Your task to perform on an android device: install app "Etsy: Buy & Sell Unique Items" Image 0: 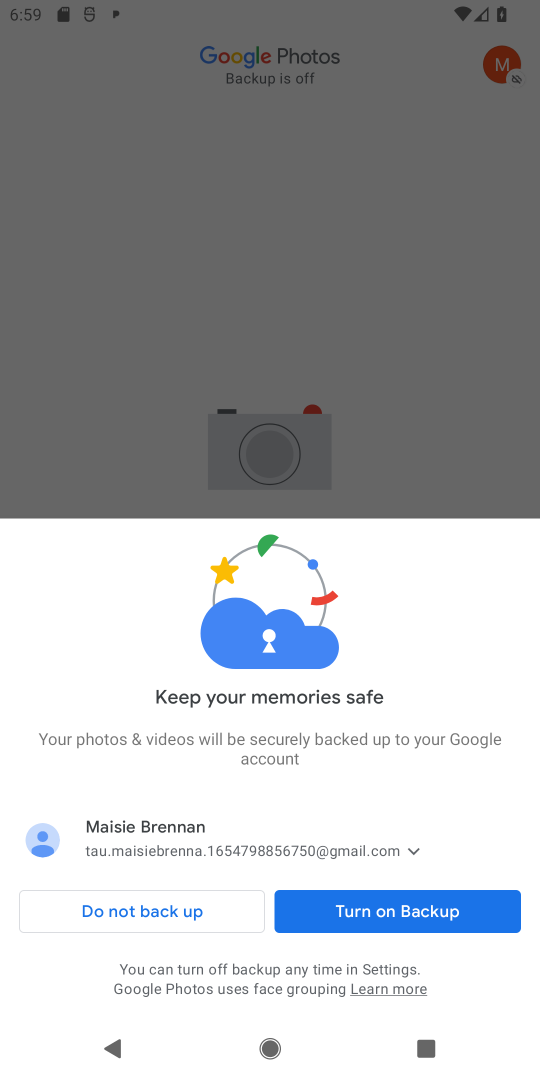
Step 0: press home button
Your task to perform on an android device: install app "Etsy: Buy & Sell Unique Items" Image 1: 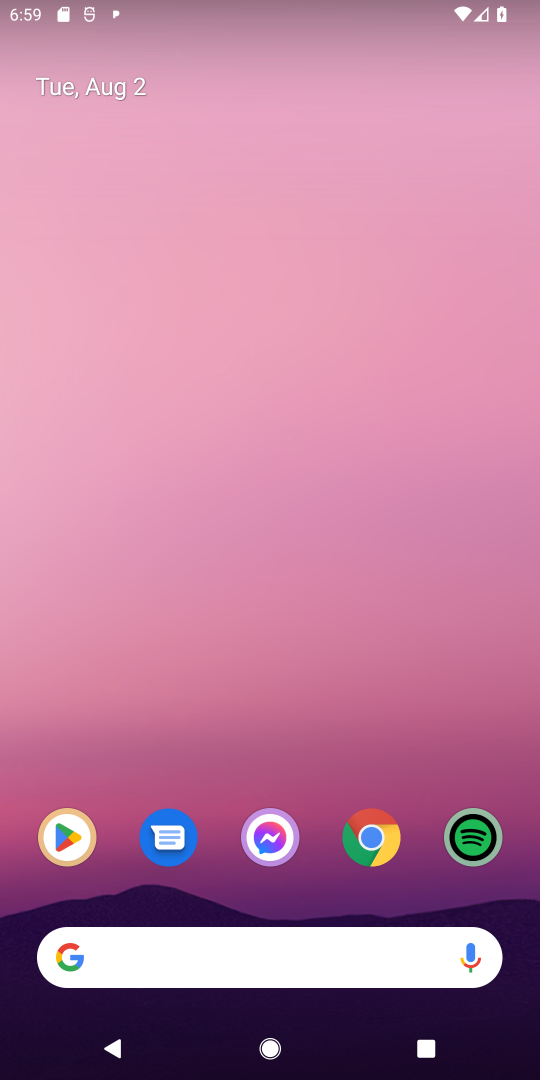
Step 1: click (62, 832)
Your task to perform on an android device: install app "Etsy: Buy & Sell Unique Items" Image 2: 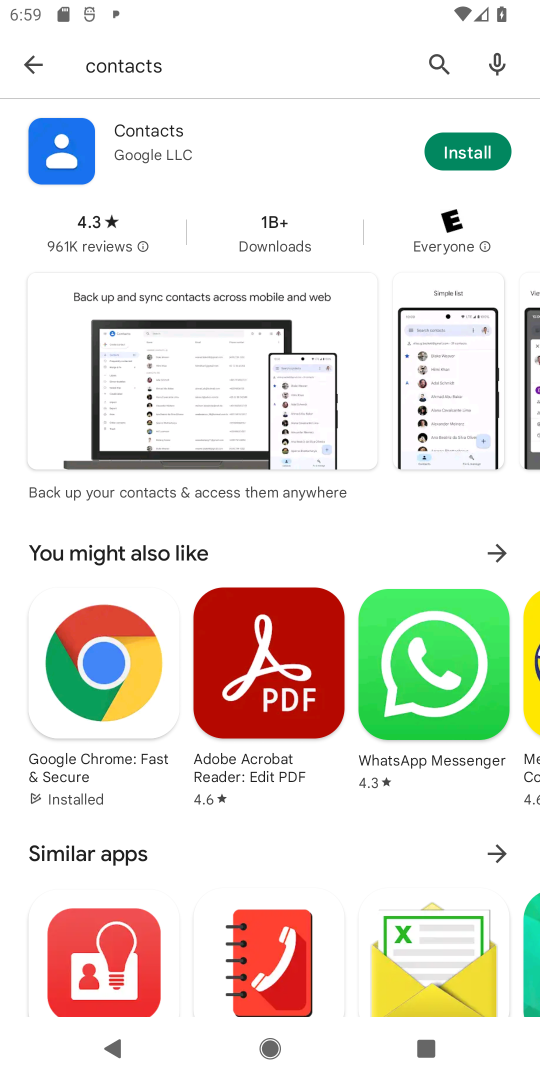
Step 2: click (442, 65)
Your task to perform on an android device: install app "Etsy: Buy & Sell Unique Items" Image 3: 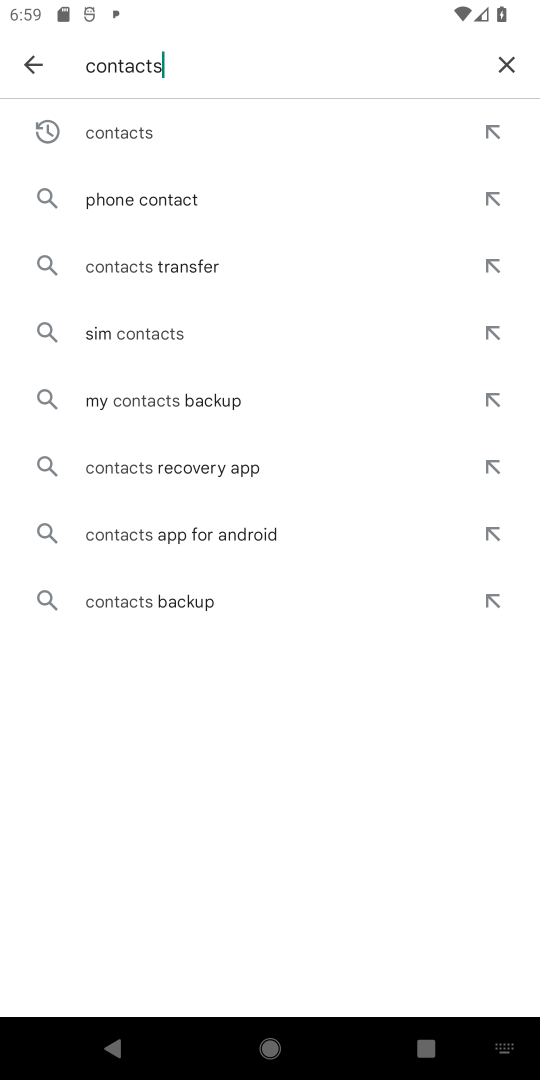
Step 3: click (511, 64)
Your task to perform on an android device: install app "Etsy: Buy & Sell Unique Items" Image 4: 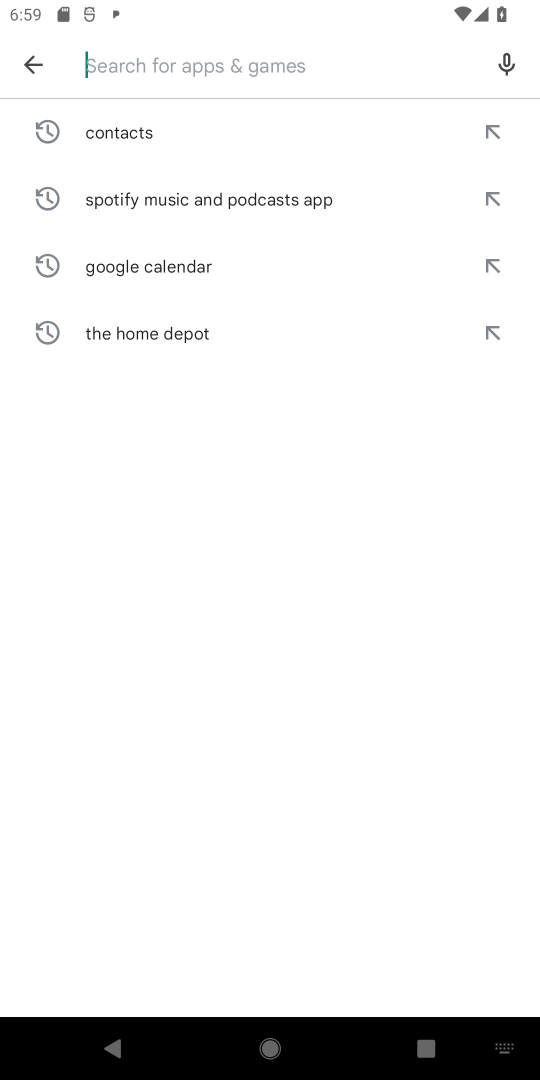
Step 4: type "Etsy: Buy & Sell Unique Items"
Your task to perform on an android device: install app "Etsy: Buy & Sell Unique Items" Image 5: 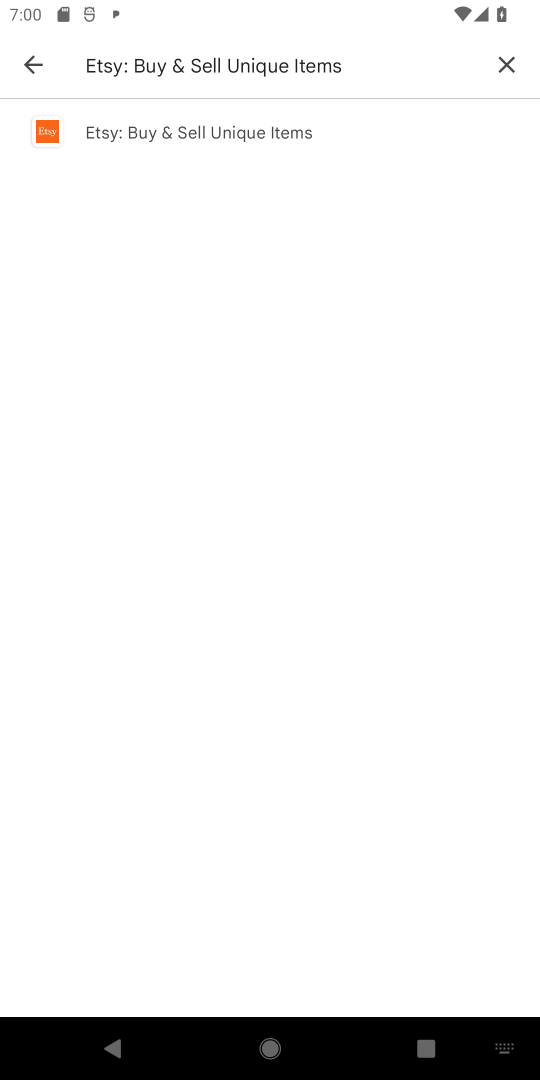
Step 5: click (150, 133)
Your task to perform on an android device: install app "Etsy: Buy & Sell Unique Items" Image 6: 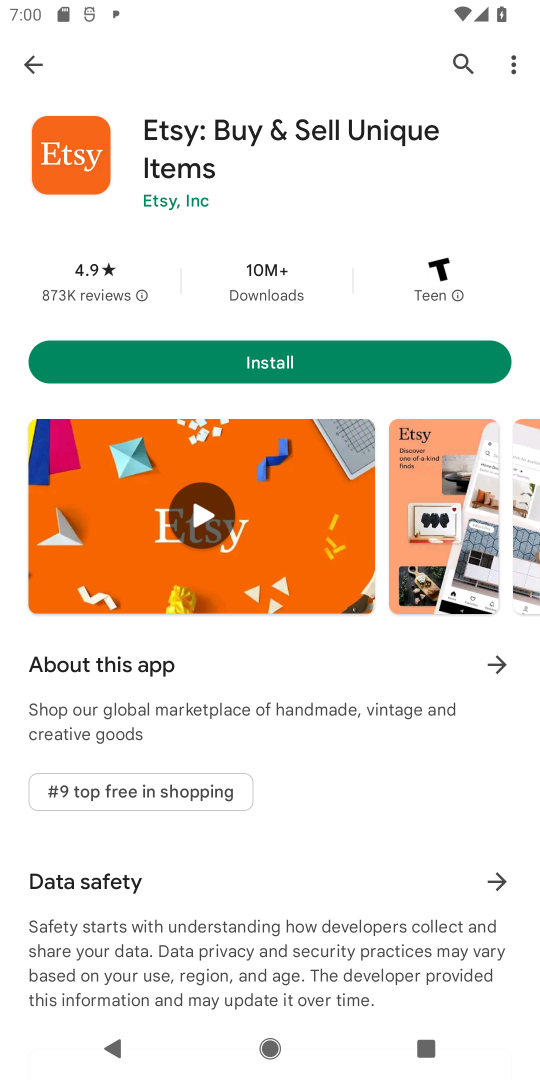
Step 6: click (249, 354)
Your task to perform on an android device: install app "Etsy: Buy & Sell Unique Items" Image 7: 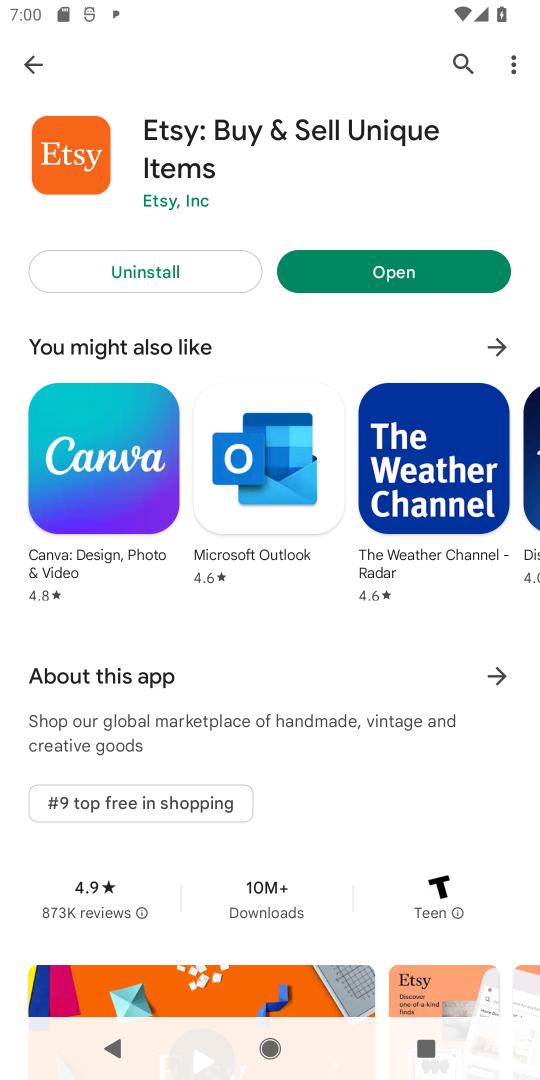
Step 7: task complete